Your task to perform on an android device: Open privacy settings Image 0: 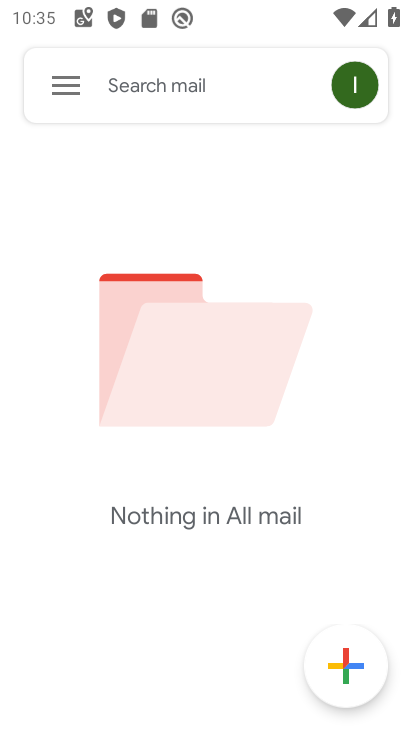
Step 0: press back button
Your task to perform on an android device: Open privacy settings Image 1: 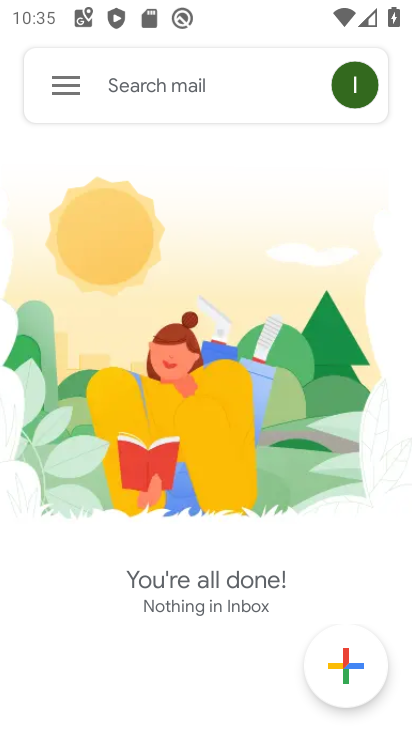
Step 1: press back button
Your task to perform on an android device: Open privacy settings Image 2: 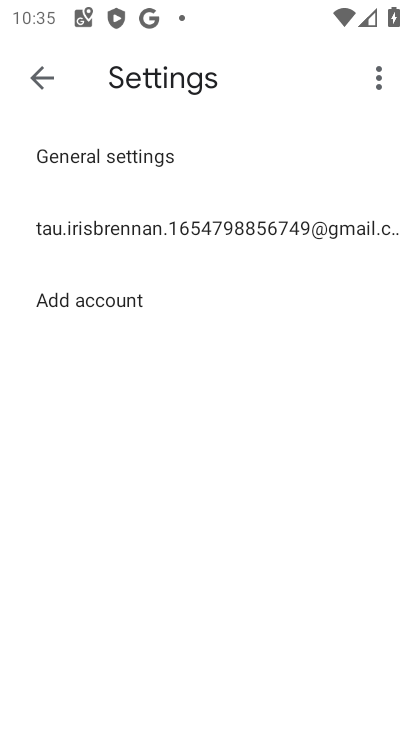
Step 2: press back button
Your task to perform on an android device: Open privacy settings Image 3: 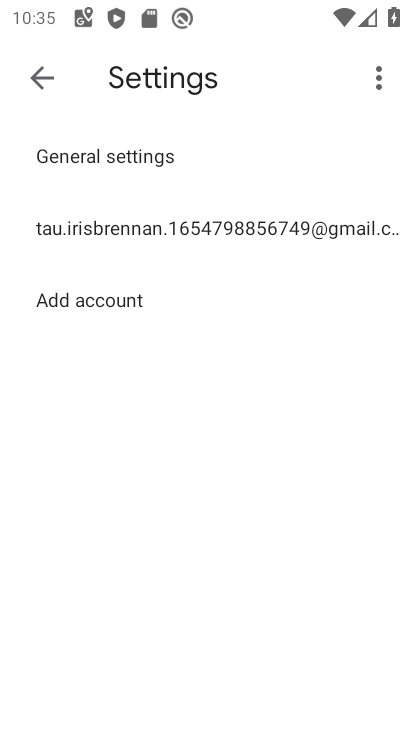
Step 3: press back button
Your task to perform on an android device: Open privacy settings Image 4: 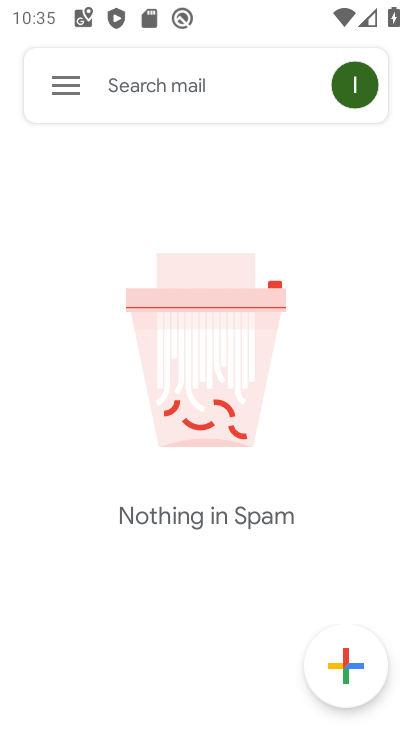
Step 4: press back button
Your task to perform on an android device: Open privacy settings Image 5: 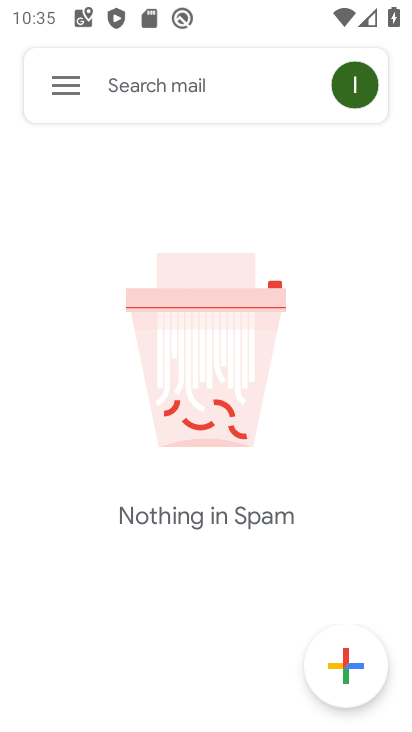
Step 5: press back button
Your task to perform on an android device: Open privacy settings Image 6: 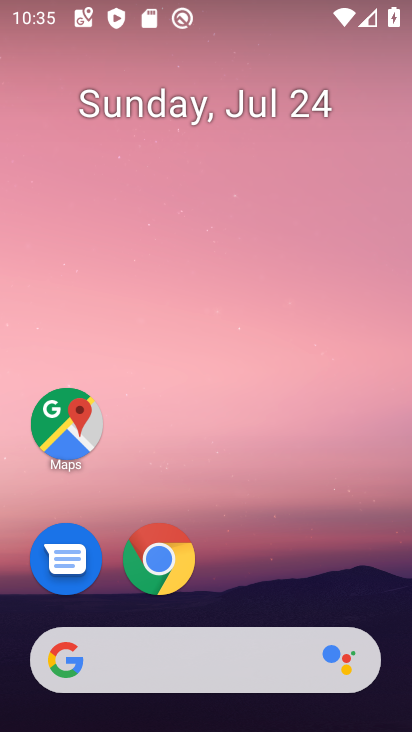
Step 6: drag from (243, 540) to (300, 21)
Your task to perform on an android device: Open privacy settings Image 7: 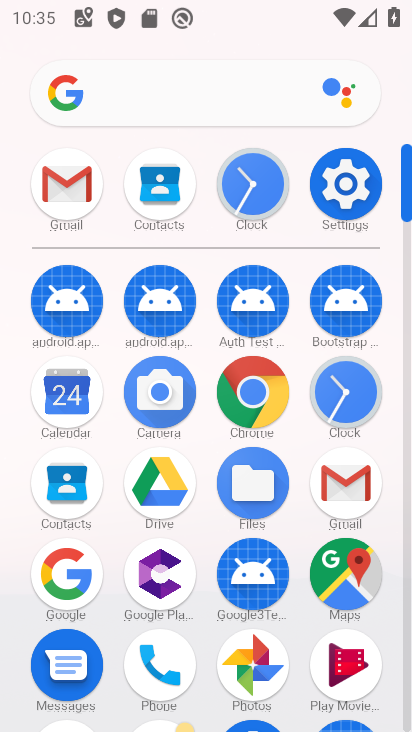
Step 7: click (352, 234)
Your task to perform on an android device: Open privacy settings Image 8: 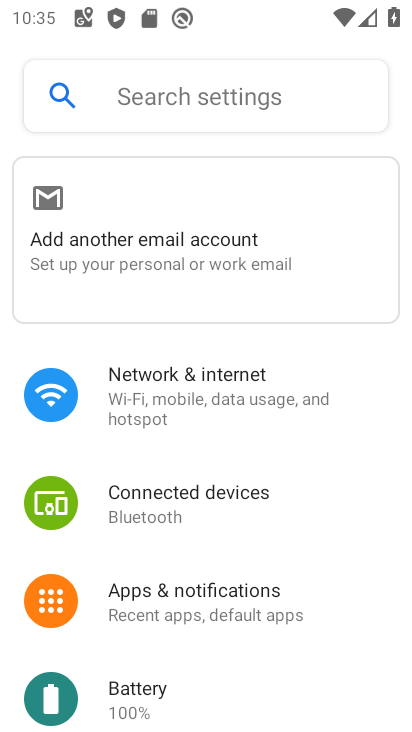
Step 8: drag from (211, 636) to (295, 130)
Your task to perform on an android device: Open privacy settings Image 9: 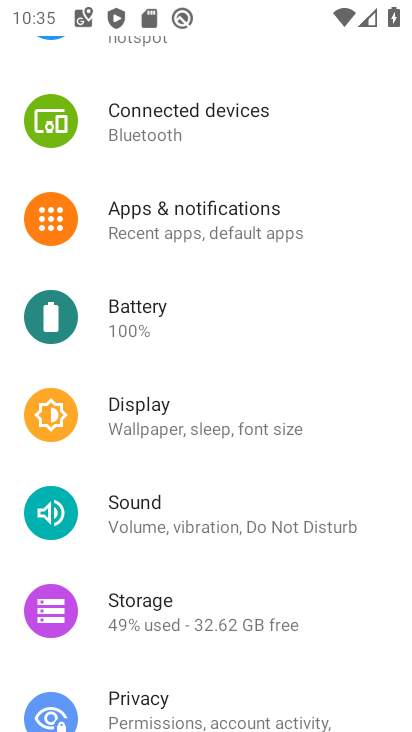
Step 9: click (146, 703)
Your task to perform on an android device: Open privacy settings Image 10: 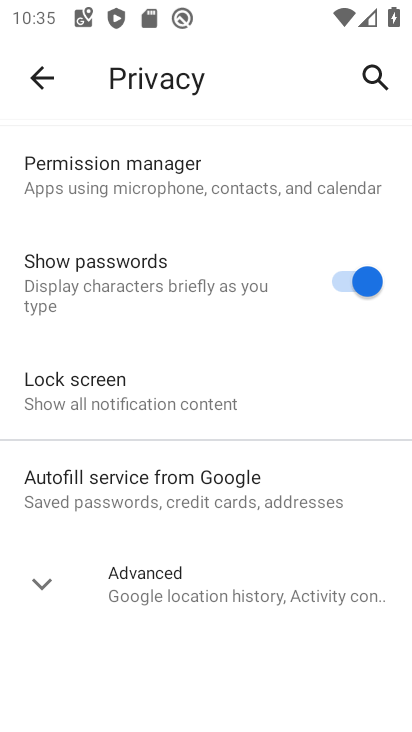
Step 10: task complete